Your task to perform on an android device: Go to eBay Image 0: 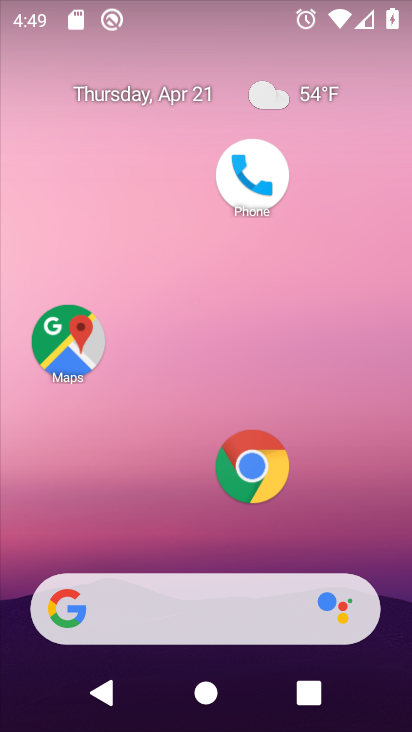
Step 0: click (268, 450)
Your task to perform on an android device: Go to eBay Image 1: 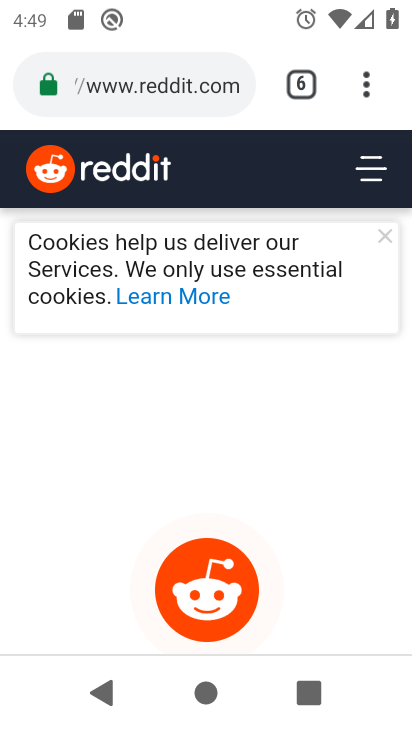
Step 1: click (308, 85)
Your task to perform on an android device: Go to eBay Image 2: 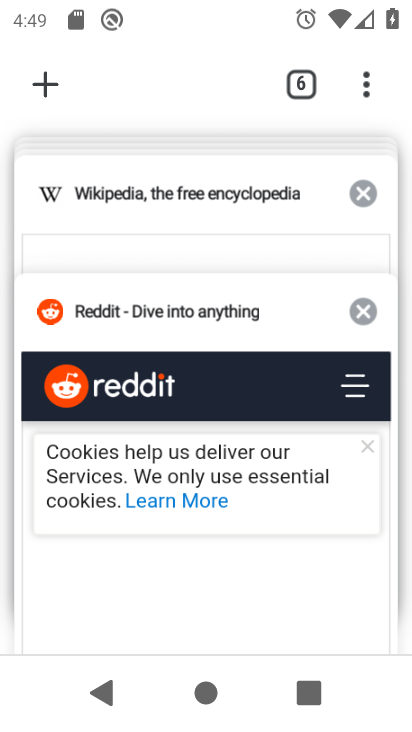
Step 2: click (39, 97)
Your task to perform on an android device: Go to eBay Image 3: 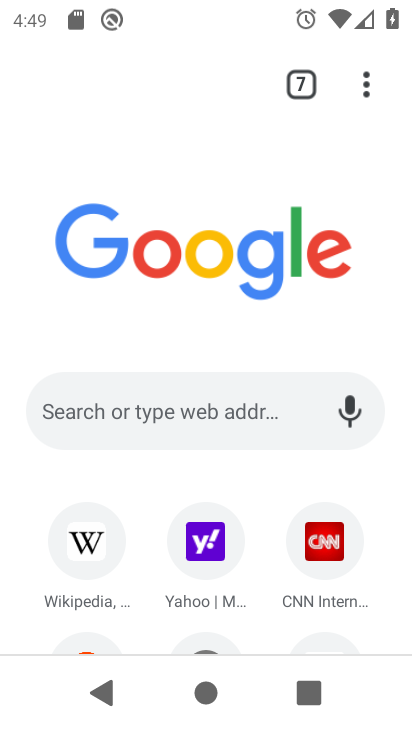
Step 3: click (237, 401)
Your task to perform on an android device: Go to eBay Image 4: 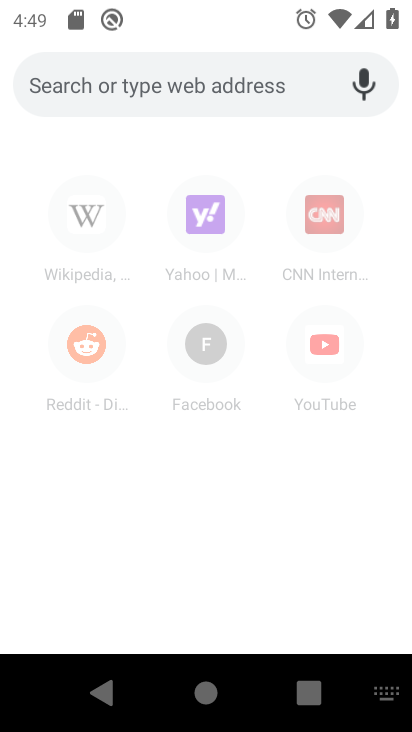
Step 4: type "ebay"
Your task to perform on an android device: Go to eBay Image 5: 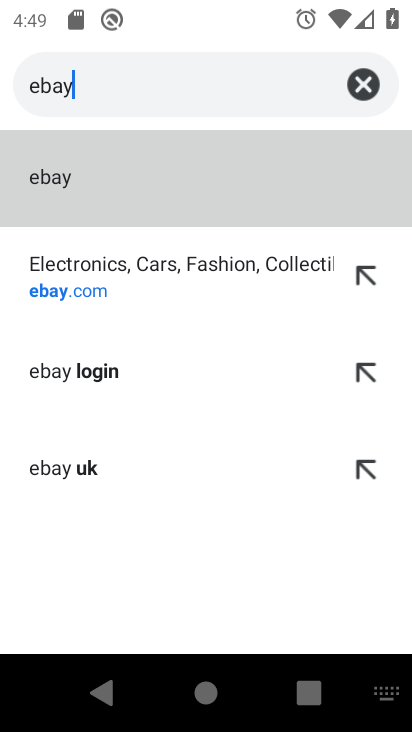
Step 5: click (75, 275)
Your task to perform on an android device: Go to eBay Image 6: 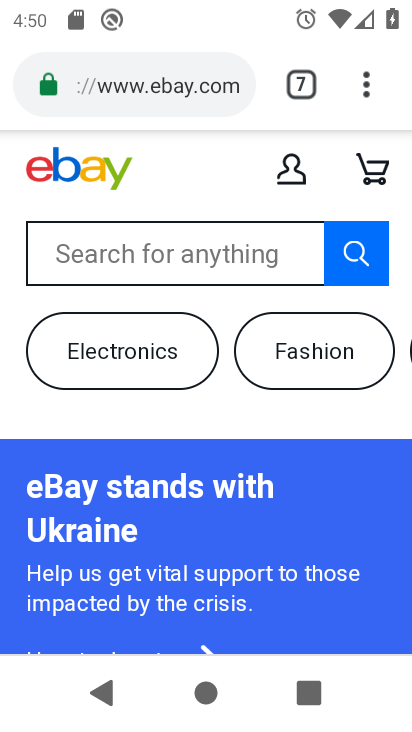
Step 6: task complete